Your task to perform on an android device: turn on wifi Image 0: 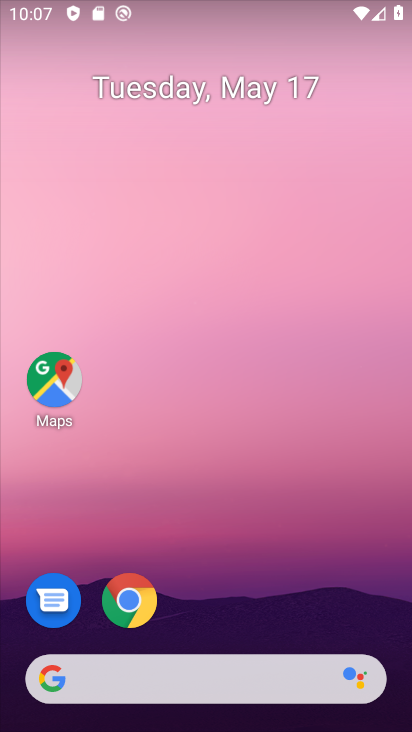
Step 0: drag from (353, 526) to (341, 143)
Your task to perform on an android device: turn on wifi Image 1: 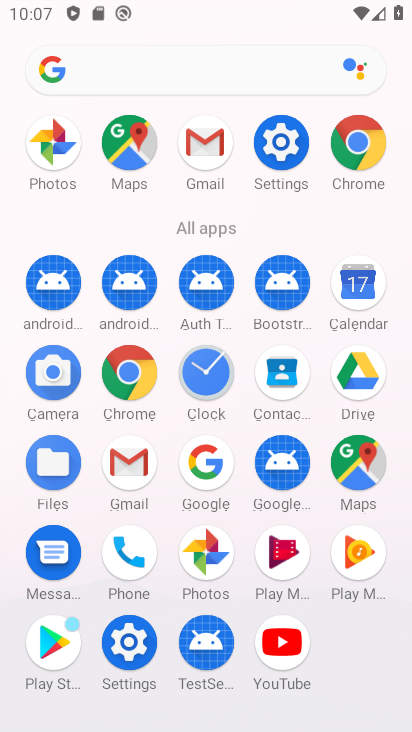
Step 1: click (146, 654)
Your task to perform on an android device: turn on wifi Image 2: 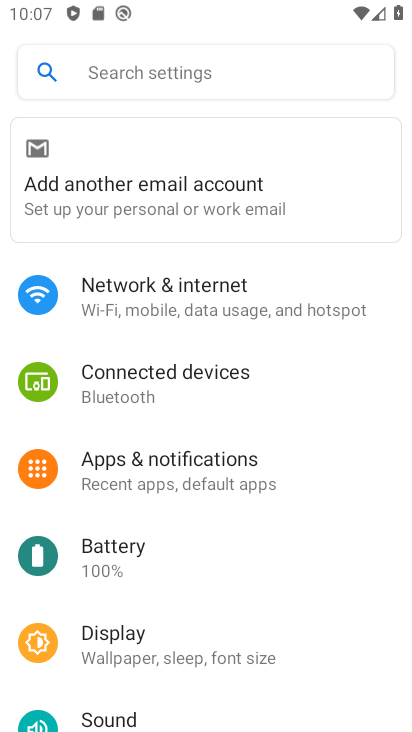
Step 2: drag from (349, 606) to (359, 484)
Your task to perform on an android device: turn on wifi Image 3: 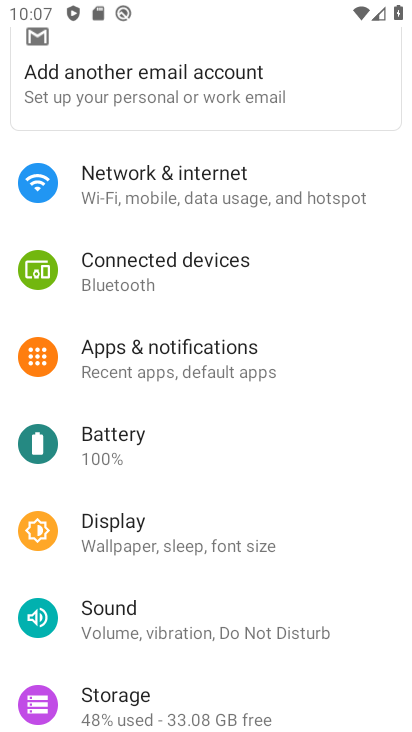
Step 3: drag from (358, 670) to (357, 515)
Your task to perform on an android device: turn on wifi Image 4: 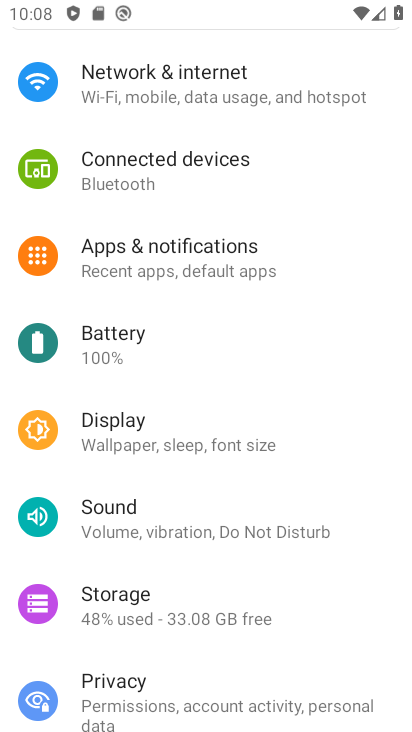
Step 4: drag from (335, 661) to (350, 520)
Your task to perform on an android device: turn on wifi Image 5: 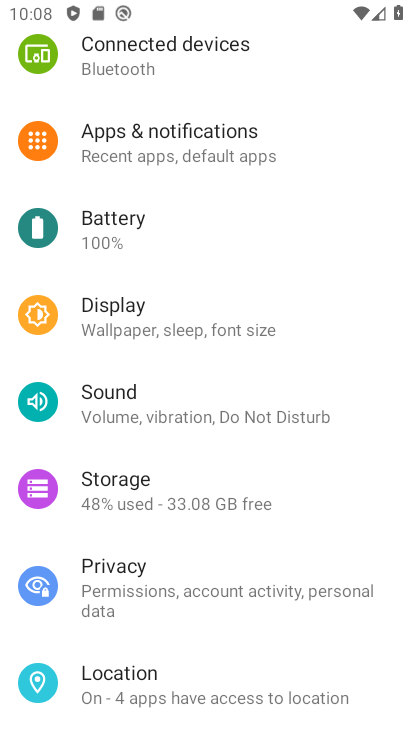
Step 5: drag from (315, 659) to (325, 546)
Your task to perform on an android device: turn on wifi Image 6: 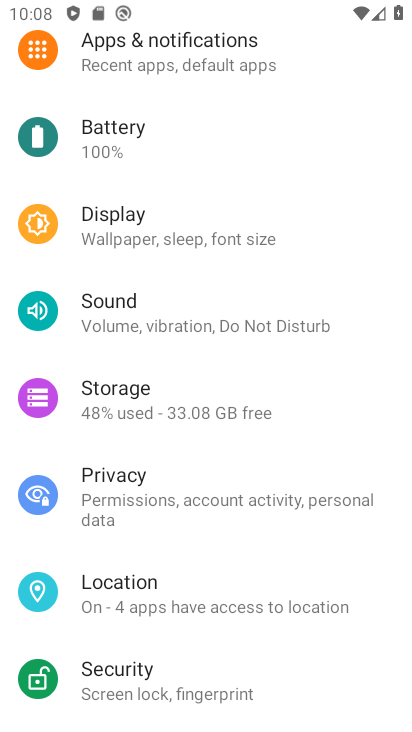
Step 6: drag from (315, 677) to (333, 548)
Your task to perform on an android device: turn on wifi Image 7: 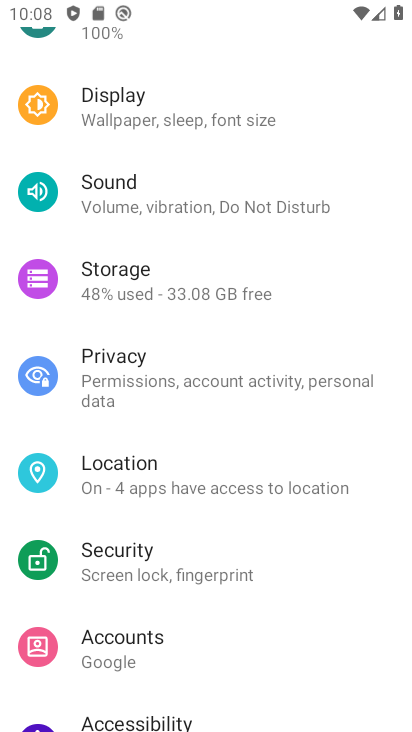
Step 7: drag from (313, 659) to (312, 540)
Your task to perform on an android device: turn on wifi Image 8: 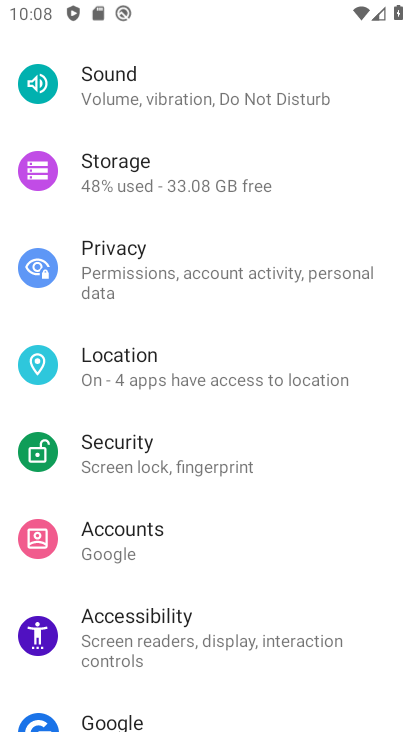
Step 8: drag from (328, 688) to (321, 550)
Your task to perform on an android device: turn on wifi Image 9: 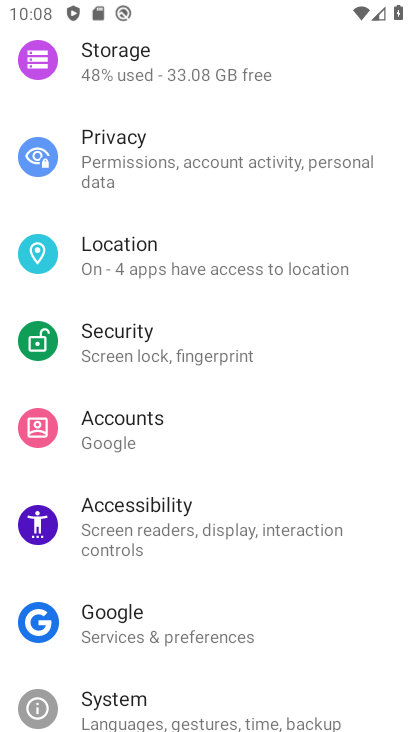
Step 9: drag from (319, 657) to (324, 565)
Your task to perform on an android device: turn on wifi Image 10: 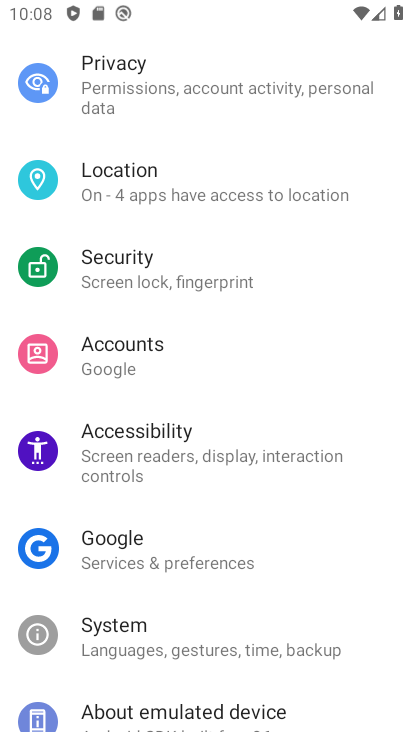
Step 10: drag from (318, 679) to (315, 571)
Your task to perform on an android device: turn on wifi Image 11: 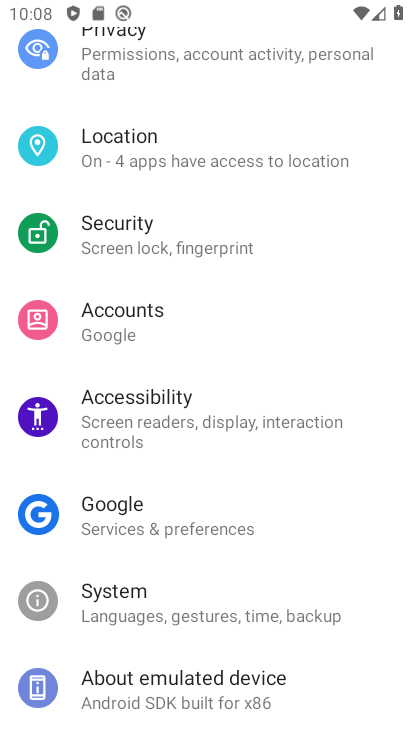
Step 11: drag from (327, 678) to (333, 545)
Your task to perform on an android device: turn on wifi Image 12: 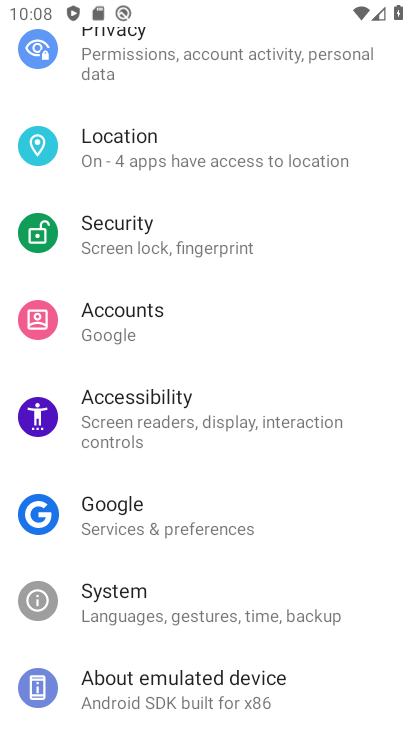
Step 12: drag from (362, 258) to (360, 437)
Your task to perform on an android device: turn on wifi Image 13: 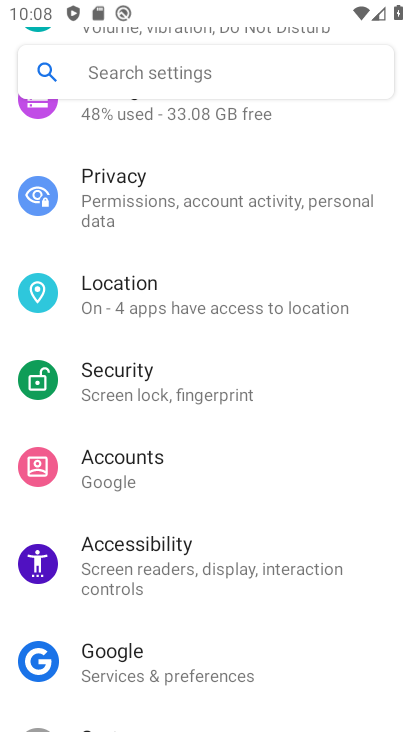
Step 13: drag from (364, 257) to (364, 390)
Your task to perform on an android device: turn on wifi Image 14: 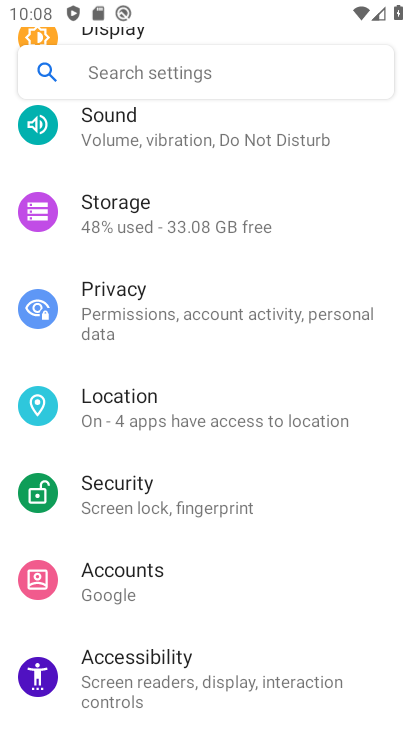
Step 14: drag from (363, 227) to (365, 403)
Your task to perform on an android device: turn on wifi Image 15: 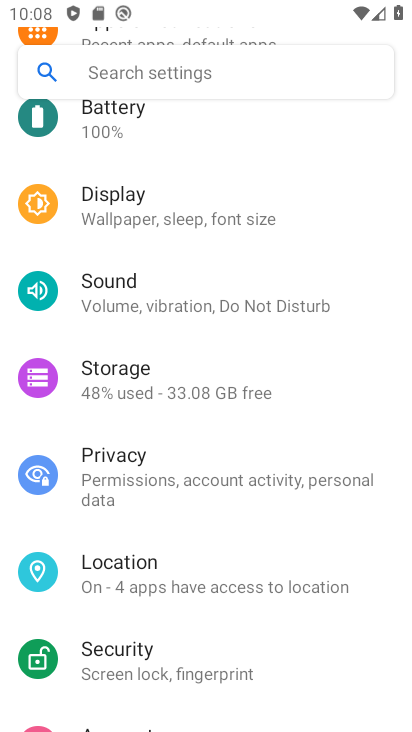
Step 15: drag from (343, 237) to (343, 406)
Your task to perform on an android device: turn on wifi Image 16: 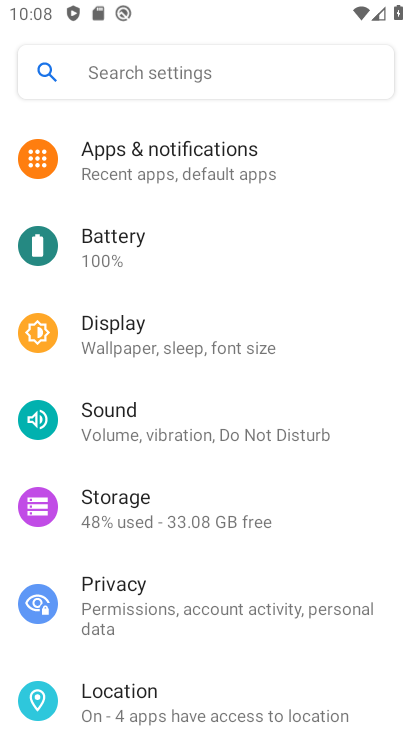
Step 16: drag from (357, 258) to (358, 410)
Your task to perform on an android device: turn on wifi Image 17: 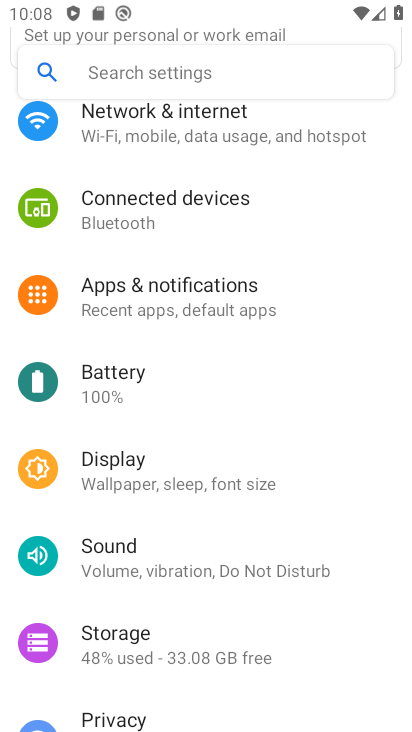
Step 17: drag from (333, 217) to (333, 348)
Your task to perform on an android device: turn on wifi Image 18: 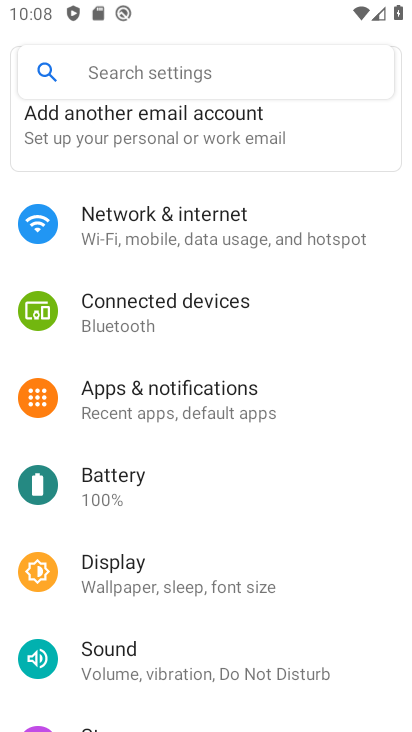
Step 18: click (274, 237)
Your task to perform on an android device: turn on wifi Image 19: 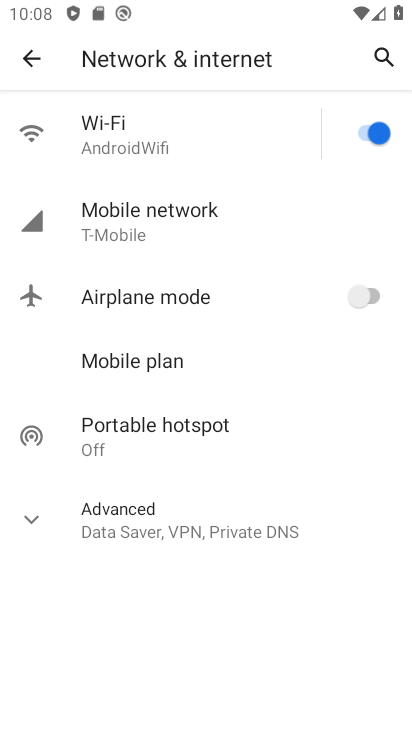
Step 19: task complete